Your task to perform on an android device: change timer sound Image 0: 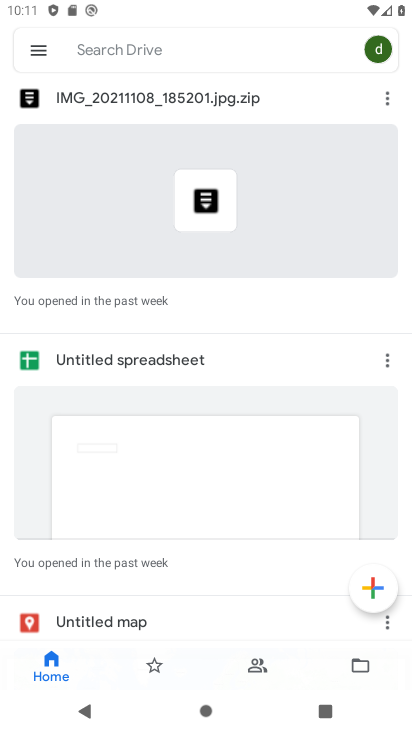
Step 0: press back button
Your task to perform on an android device: change timer sound Image 1: 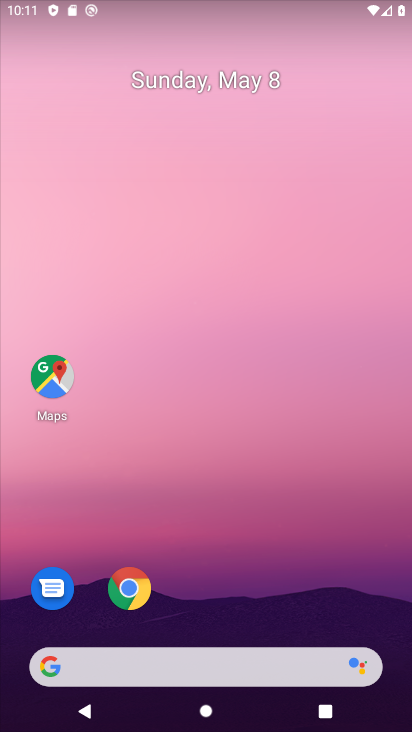
Step 1: drag from (260, 642) to (392, 75)
Your task to perform on an android device: change timer sound Image 2: 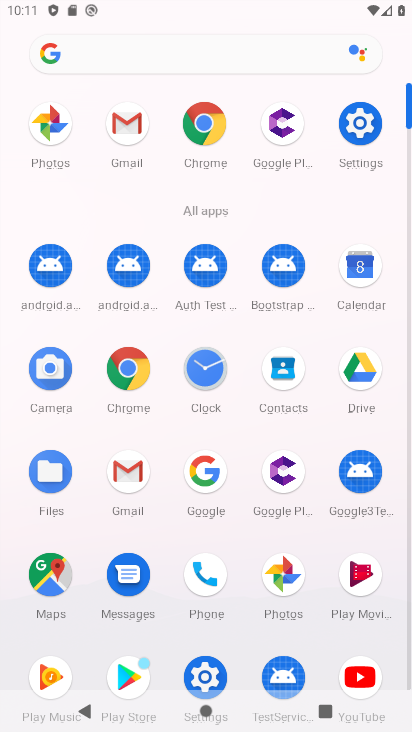
Step 2: click (202, 369)
Your task to perform on an android device: change timer sound Image 3: 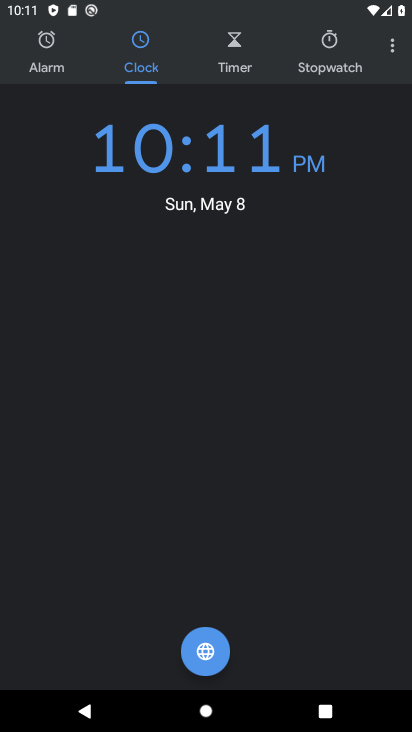
Step 3: click (398, 40)
Your task to perform on an android device: change timer sound Image 4: 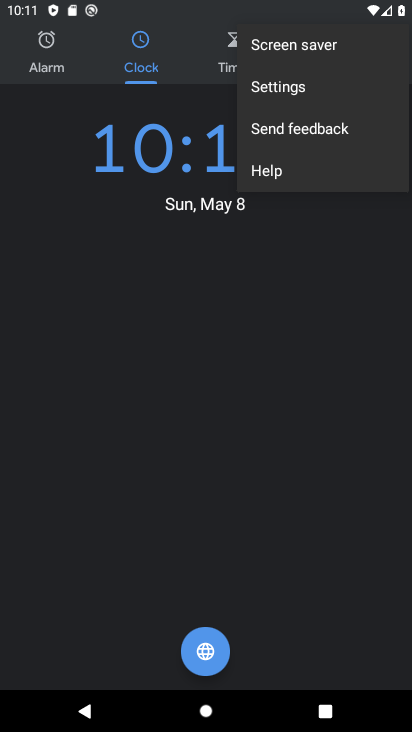
Step 4: click (378, 96)
Your task to perform on an android device: change timer sound Image 5: 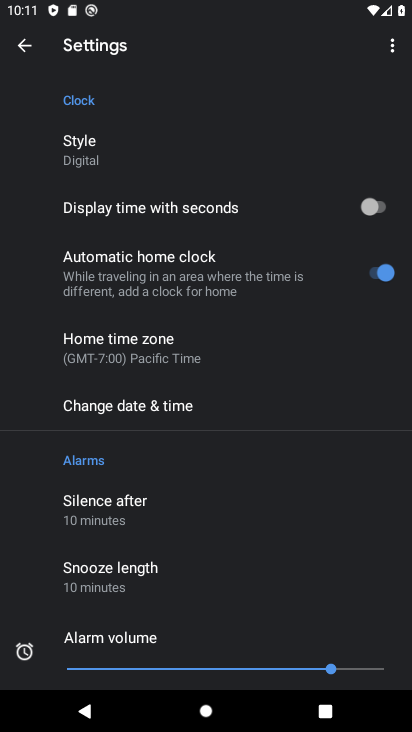
Step 5: drag from (263, 643) to (317, 372)
Your task to perform on an android device: change timer sound Image 6: 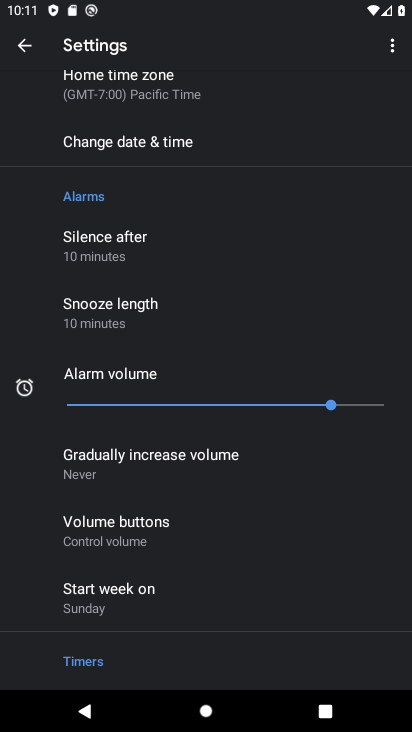
Step 6: drag from (245, 614) to (345, 289)
Your task to perform on an android device: change timer sound Image 7: 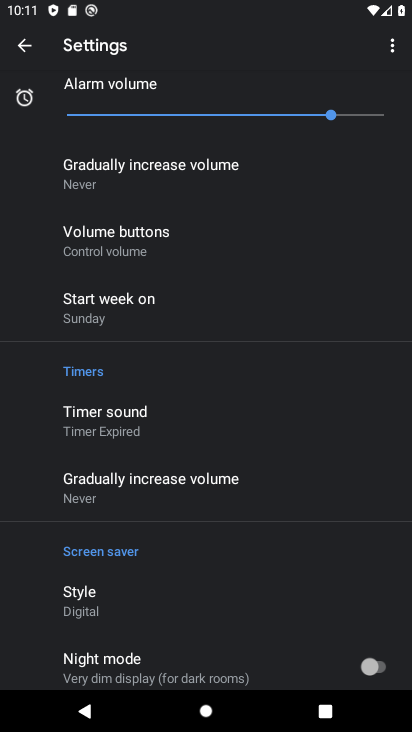
Step 7: click (272, 414)
Your task to perform on an android device: change timer sound Image 8: 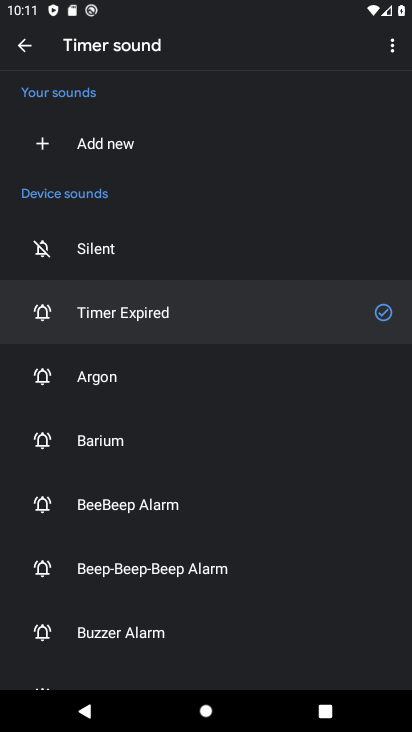
Step 8: drag from (218, 653) to (272, 453)
Your task to perform on an android device: change timer sound Image 9: 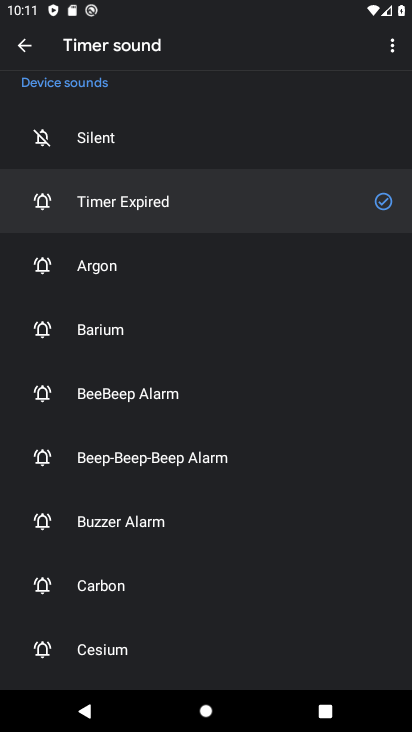
Step 9: click (246, 517)
Your task to perform on an android device: change timer sound Image 10: 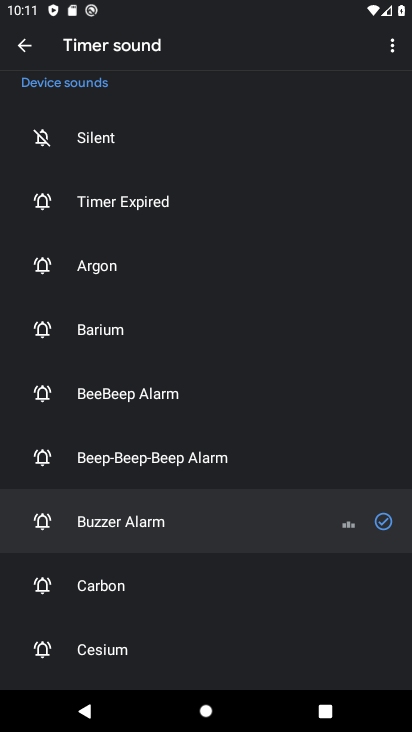
Step 10: task complete